Your task to perform on an android device: Open Youtube and go to the subscriptions tab Image 0: 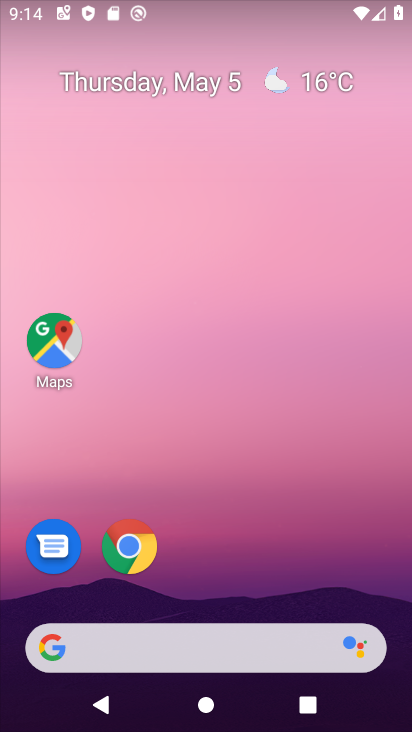
Step 0: drag from (269, 592) to (276, 44)
Your task to perform on an android device: Open Youtube and go to the subscriptions tab Image 1: 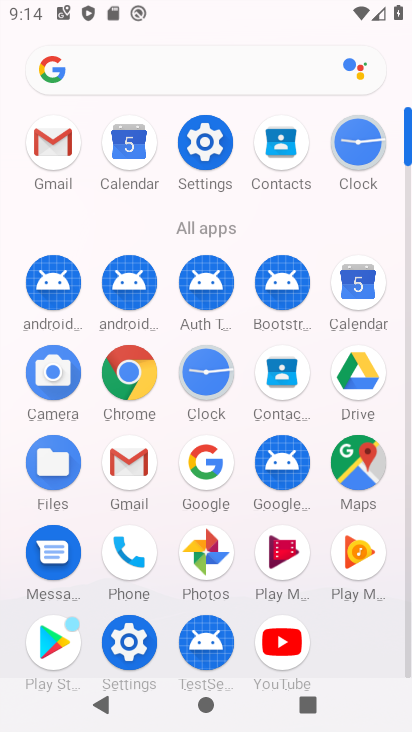
Step 1: click (271, 631)
Your task to perform on an android device: Open Youtube and go to the subscriptions tab Image 2: 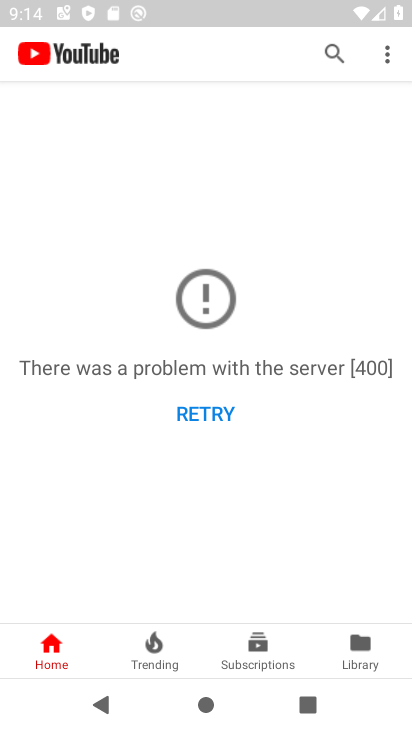
Step 2: click (227, 654)
Your task to perform on an android device: Open Youtube and go to the subscriptions tab Image 3: 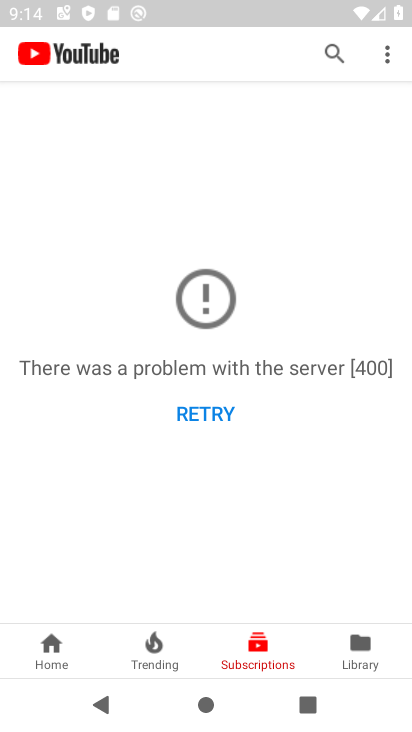
Step 3: click (196, 413)
Your task to perform on an android device: Open Youtube and go to the subscriptions tab Image 4: 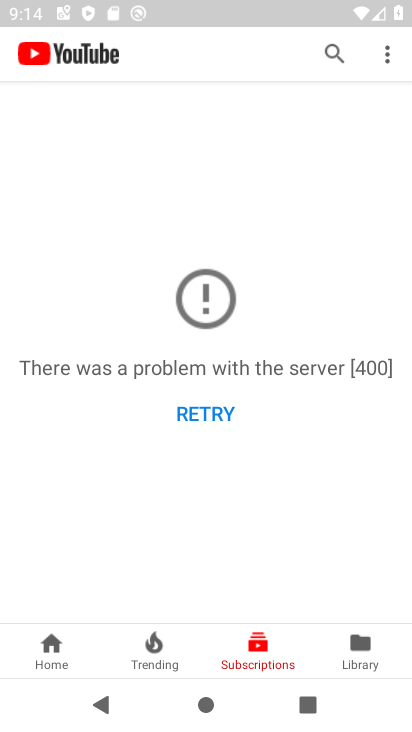
Step 4: click (197, 415)
Your task to perform on an android device: Open Youtube and go to the subscriptions tab Image 5: 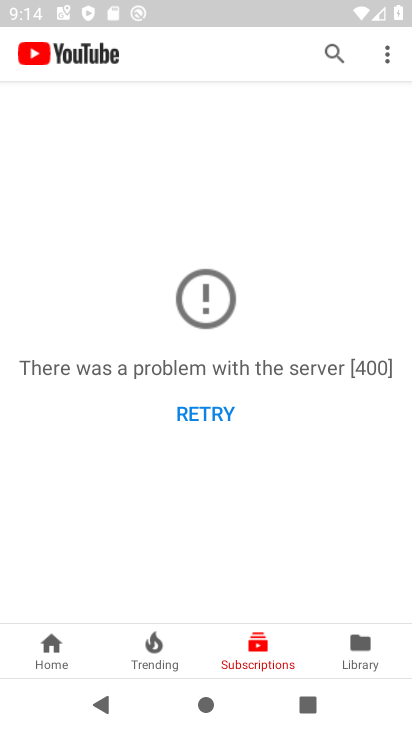
Step 5: click (197, 415)
Your task to perform on an android device: Open Youtube and go to the subscriptions tab Image 6: 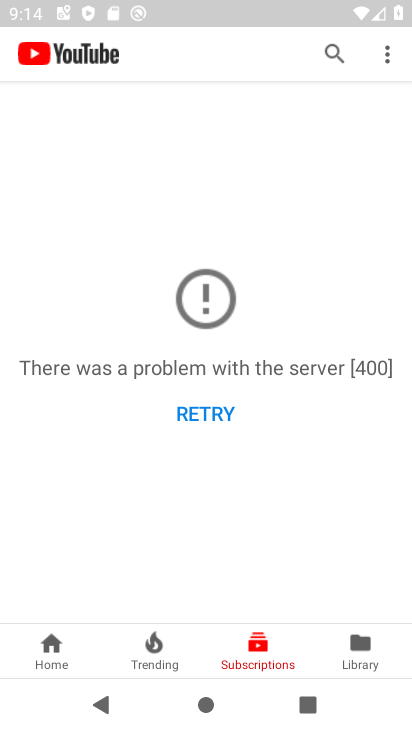
Step 6: click (197, 415)
Your task to perform on an android device: Open Youtube and go to the subscriptions tab Image 7: 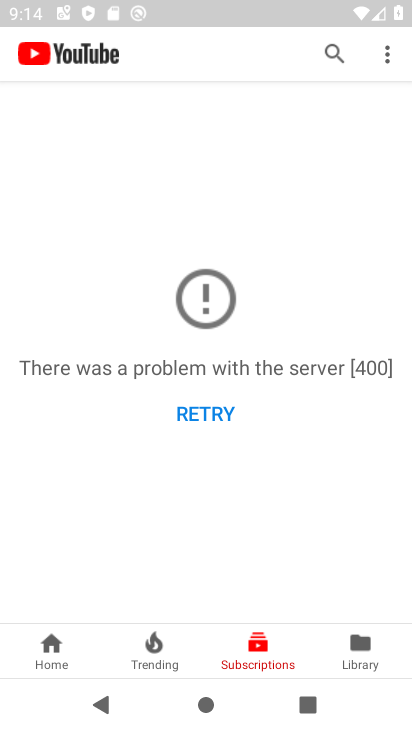
Step 7: click (197, 415)
Your task to perform on an android device: Open Youtube and go to the subscriptions tab Image 8: 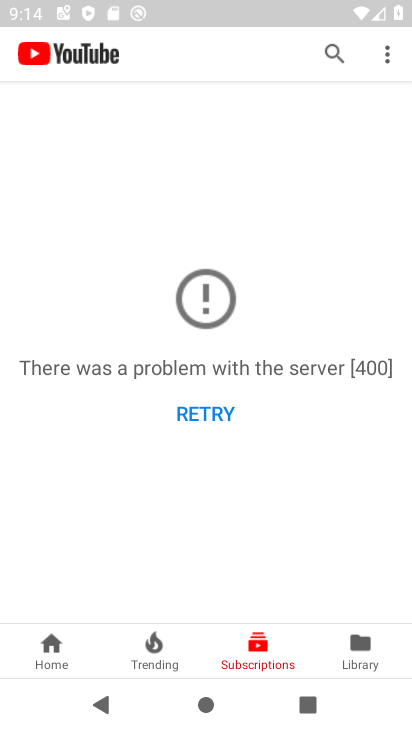
Step 8: click (197, 415)
Your task to perform on an android device: Open Youtube and go to the subscriptions tab Image 9: 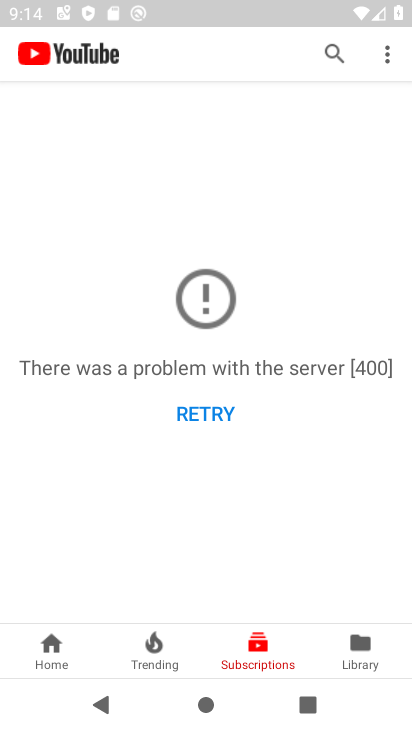
Step 9: click (197, 415)
Your task to perform on an android device: Open Youtube and go to the subscriptions tab Image 10: 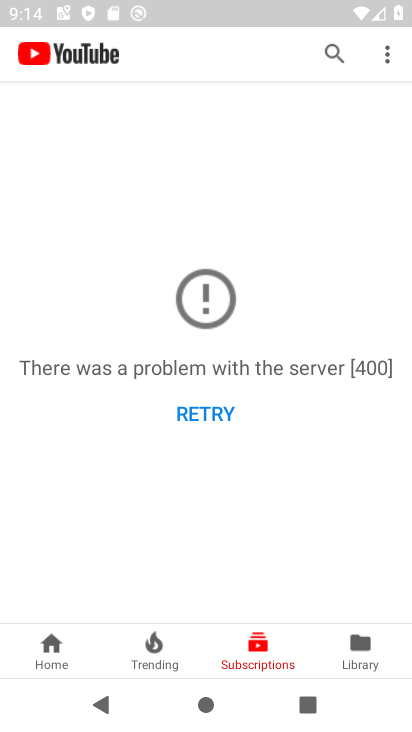
Step 10: click (197, 415)
Your task to perform on an android device: Open Youtube and go to the subscriptions tab Image 11: 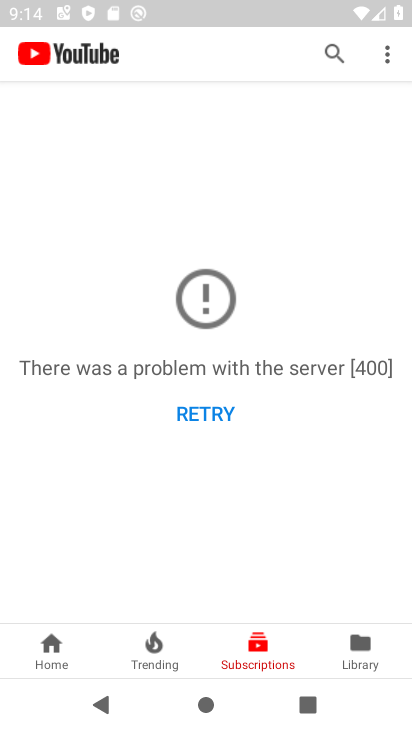
Step 11: click (197, 415)
Your task to perform on an android device: Open Youtube and go to the subscriptions tab Image 12: 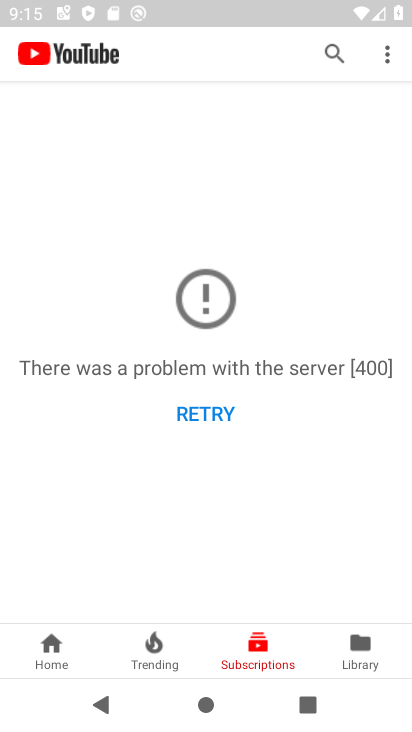
Step 12: click (197, 415)
Your task to perform on an android device: Open Youtube and go to the subscriptions tab Image 13: 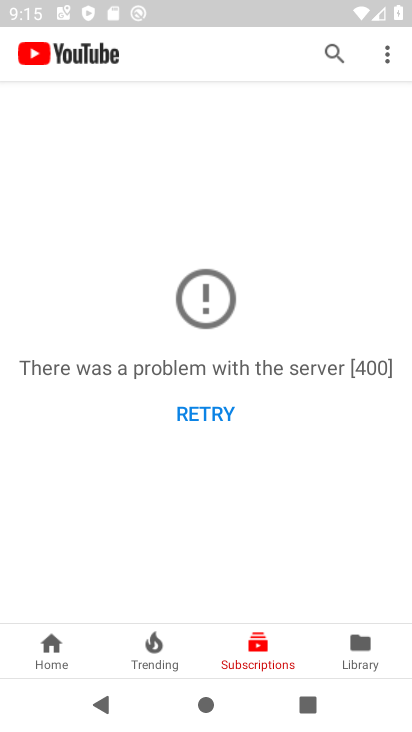
Step 13: click (197, 415)
Your task to perform on an android device: Open Youtube and go to the subscriptions tab Image 14: 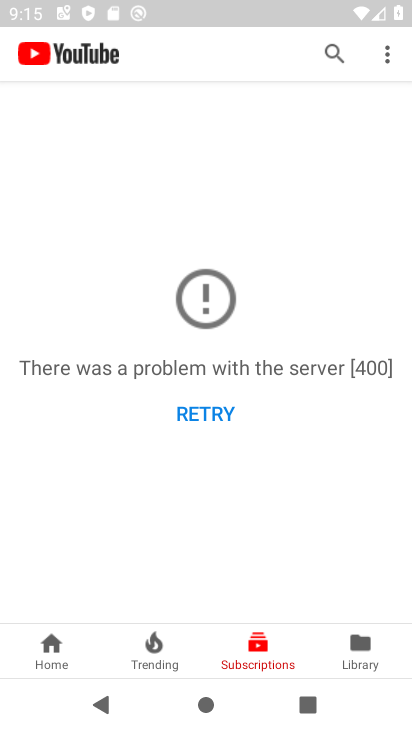
Step 14: click (196, 415)
Your task to perform on an android device: Open Youtube and go to the subscriptions tab Image 15: 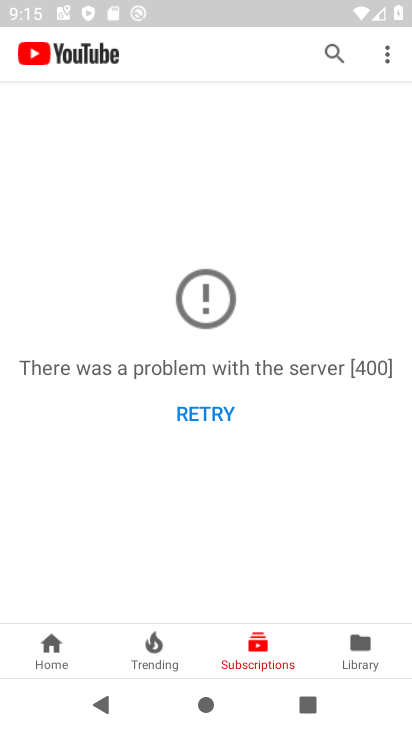
Step 15: task complete